Your task to perform on an android device: turn on airplane mode Image 0: 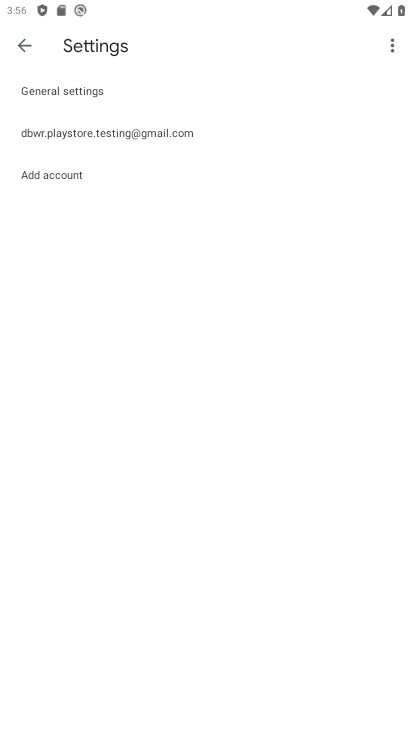
Step 0: drag from (346, 6) to (270, 557)
Your task to perform on an android device: turn on airplane mode Image 1: 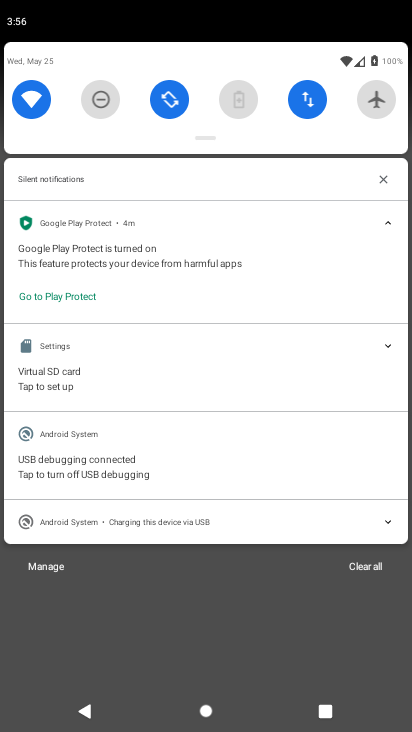
Step 1: click (364, 106)
Your task to perform on an android device: turn on airplane mode Image 2: 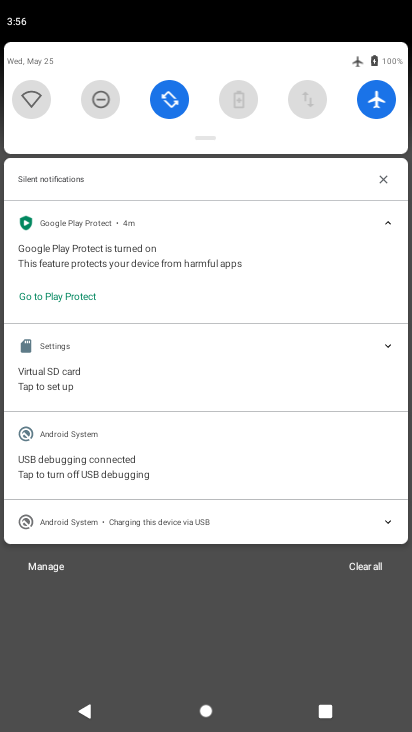
Step 2: task complete